Your task to perform on an android device: When is my next appointment? Image 0: 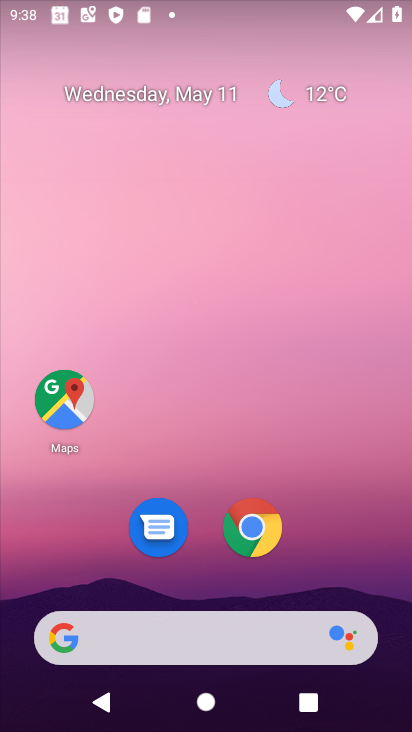
Step 0: drag from (329, 511) to (338, 5)
Your task to perform on an android device: When is my next appointment? Image 1: 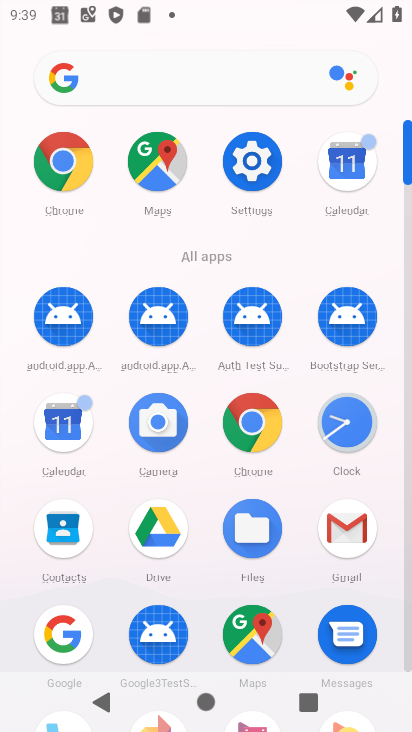
Step 1: click (58, 442)
Your task to perform on an android device: When is my next appointment? Image 2: 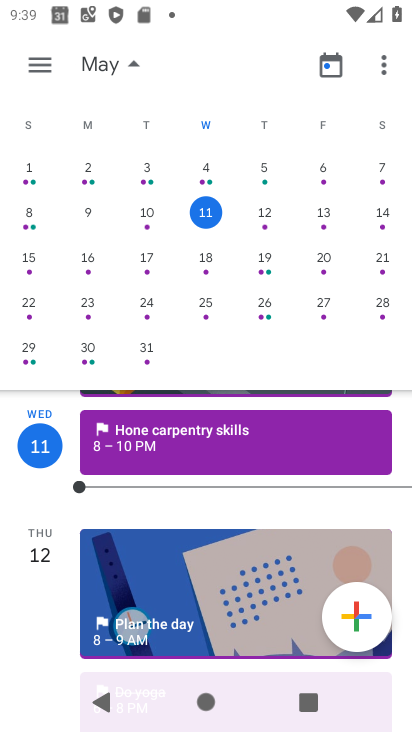
Step 2: click (269, 226)
Your task to perform on an android device: When is my next appointment? Image 3: 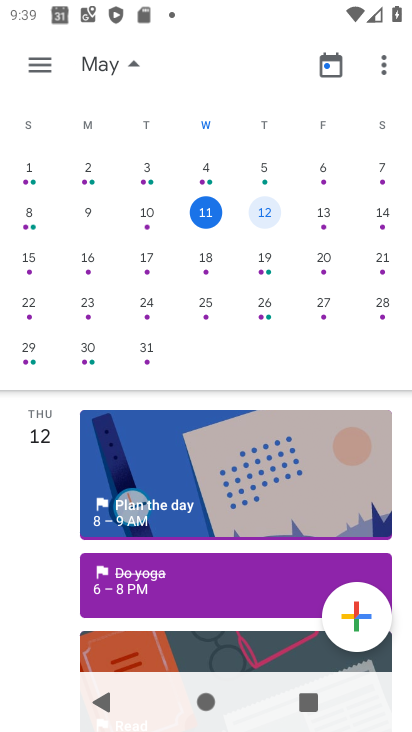
Step 3: task complete